Your task to perform on an android device: Open calendar and show me the second week of next month Image 0: 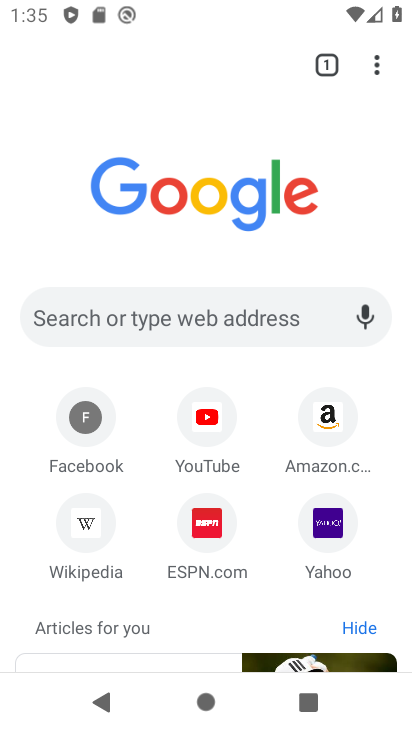
Step 0: press back button
Your task to perform on an android device: Open calendar and show me the second week of next month Image 1: 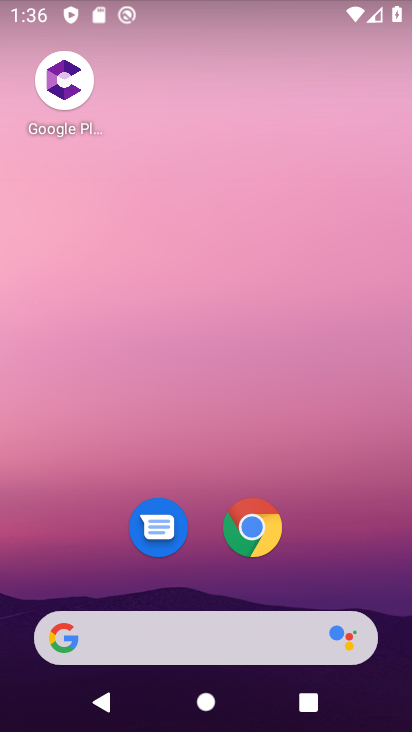
Step 1: drag from (69, 612) to (220, 66)
Your task to perform on an android device: Open calendar and show me the second week of next month Image 2: 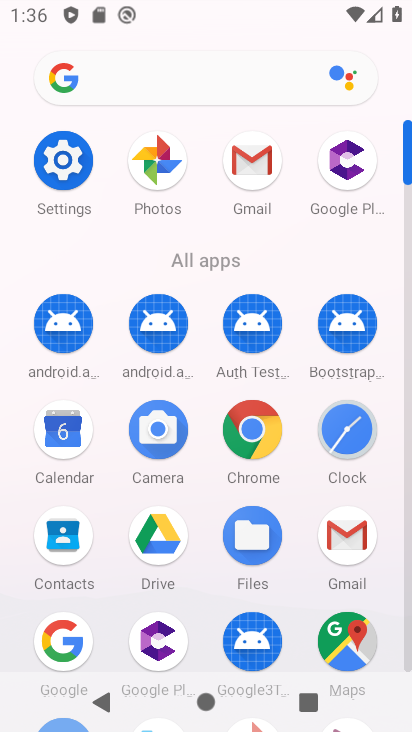
Step 2: click (65, 430)
Your task to perform on an android device: Open calendar and show me the second week of next month Image 3: 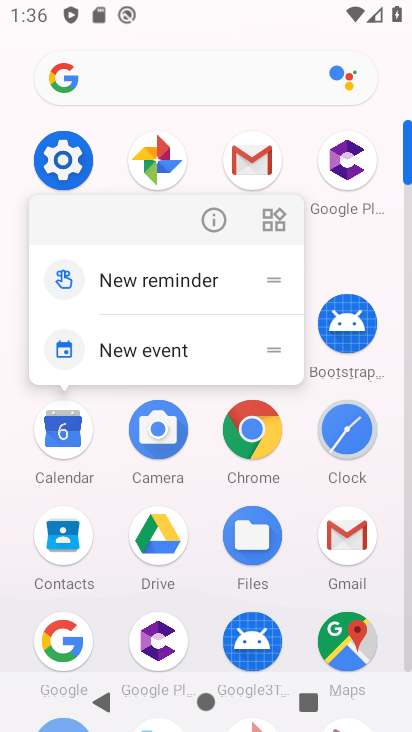
Step 3: click (65, 433)
Your task to perform on an android device: Open calendar and show me the second week of next month Image 4: 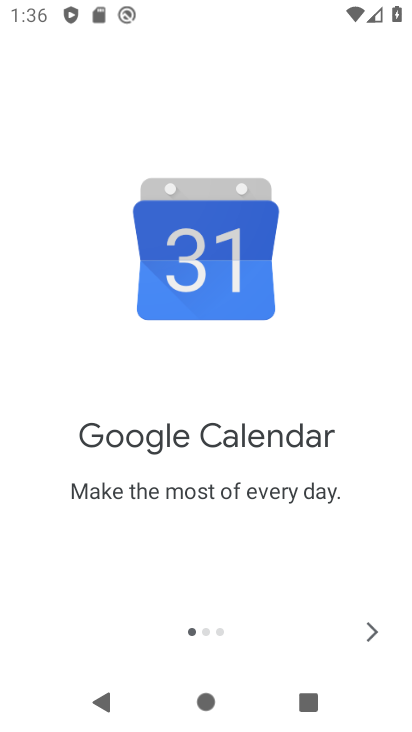
Step 4: click (356, 637)
Your task to perform on an android device: Open calendar and show me the second week of next month Image 5: 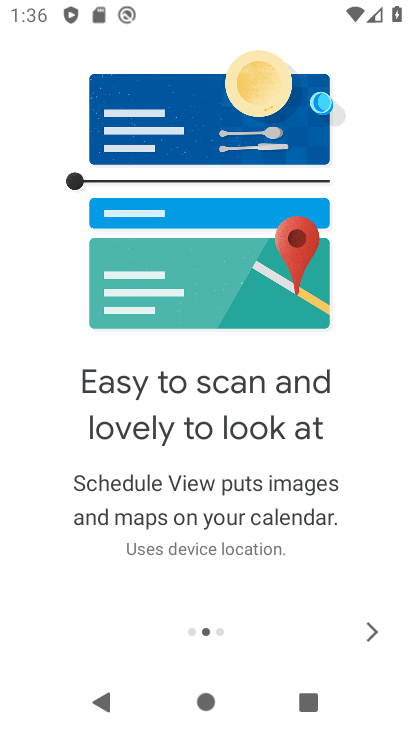
Step 5: click (356, 637)
Your task to perform on an android device: Open calendar and show me the second week of next month Image 6: 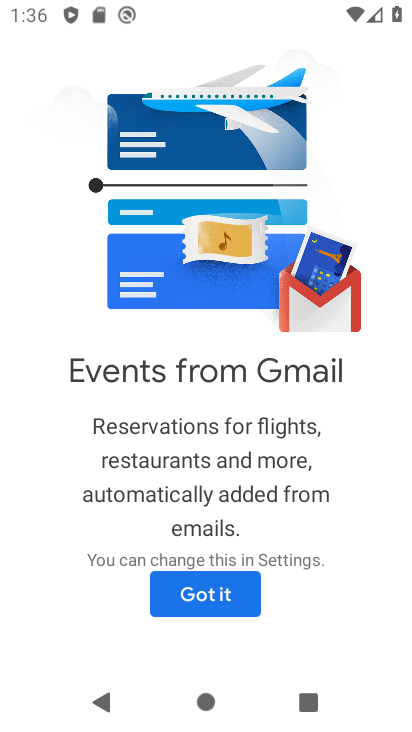
Step 6: click (206, 607)
Your task to perform on an android device: Open calendar and show me the second week of next month Image 7: 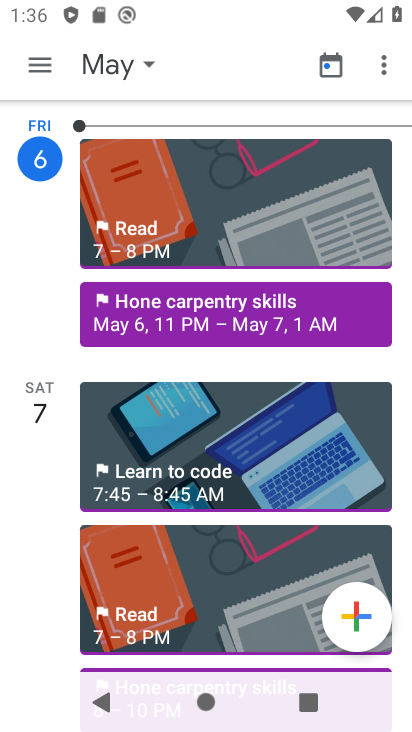
Step 7: click (93, 60)
Your task to perform on an android device: Open calendar and show me the second week of next month Image 8: 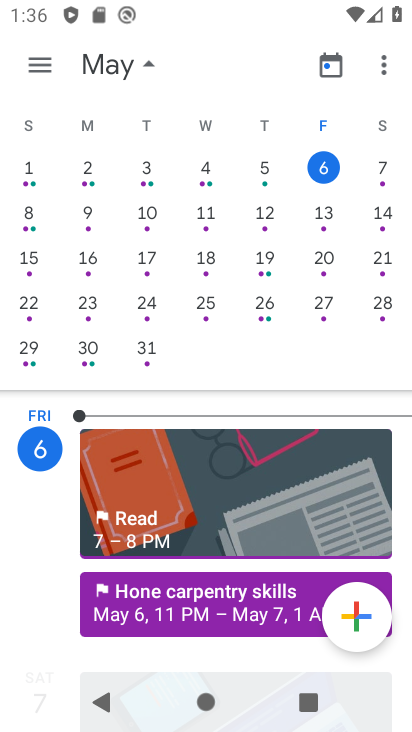
Step 8: drag from (347, 267) to (156, 248)
Your task to perform on an android device: Open calendar and show me the second week of next month Image 9: 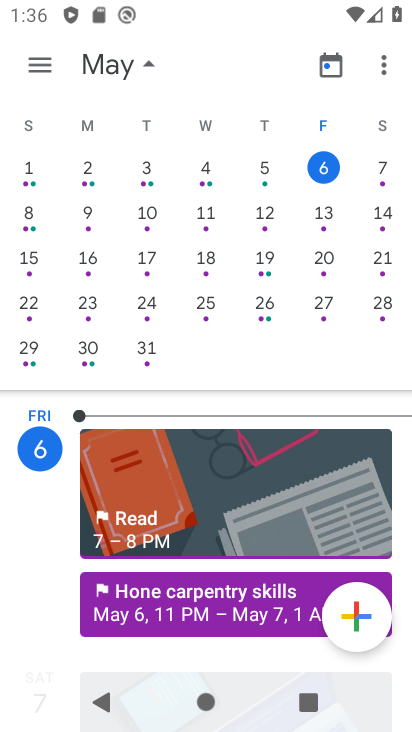
Step 9: drag from (361, 214) to (47, 226)
Your task to perform on an android device: Open calendar and show me the second week of next month Image 10: 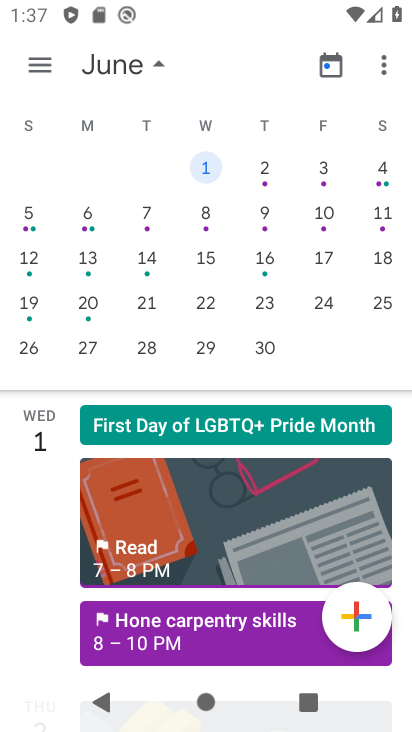
Step 10: click (32, 254)
Your task to perform on an android device: Open calendar and show me the second week of next month Image 11: 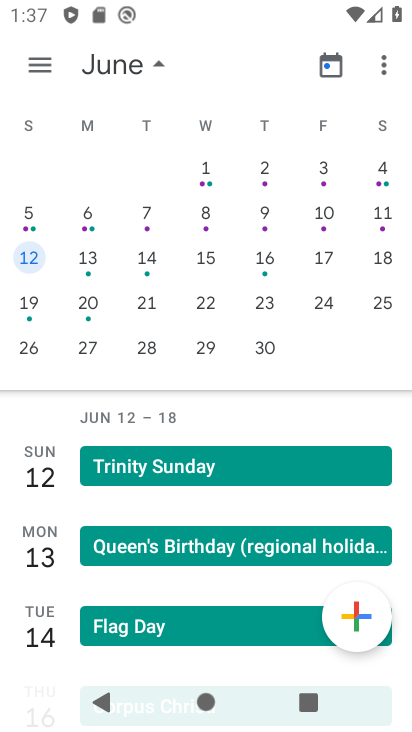
Step 11: click (51, 58)
Your task to perform on an android device: Open calendar and show me the second week of next month Image 12: 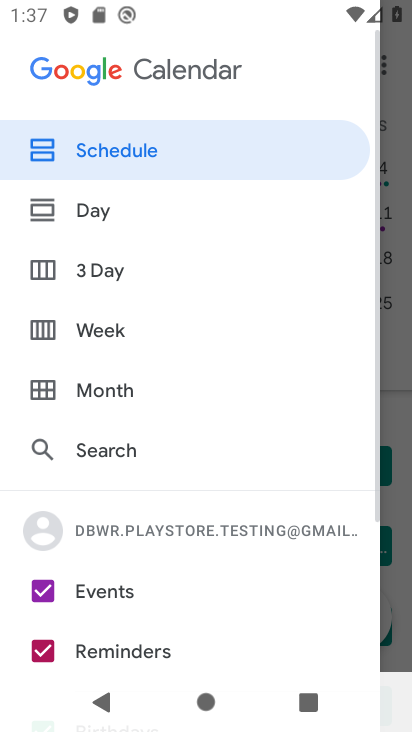
Step 12: click (116, 332)
Your task to perform on an android device: Open calendar and show me the second week of next month Image 13: 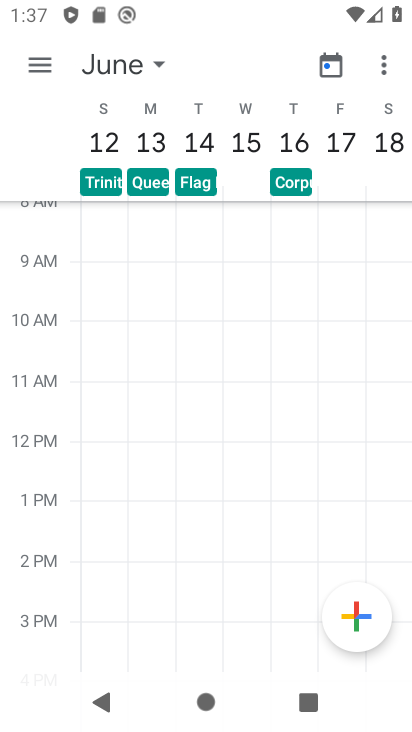
Step 13: task complete